Your task to perform on an android device: Go to Maps Image 0: 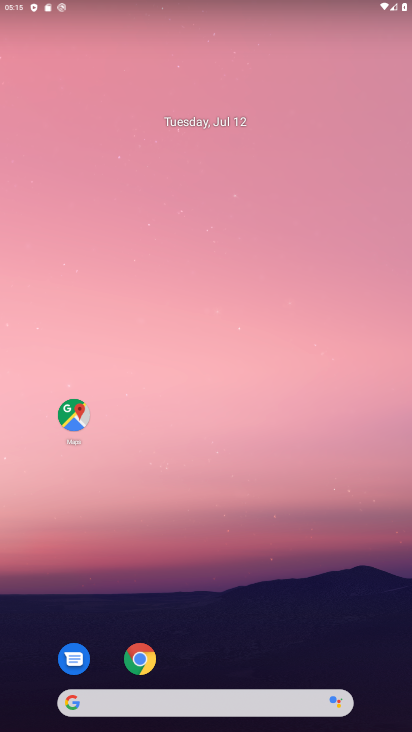
Step 0: click (73, 414)
Your task to perform on an android device: Go to Maps Image 1: 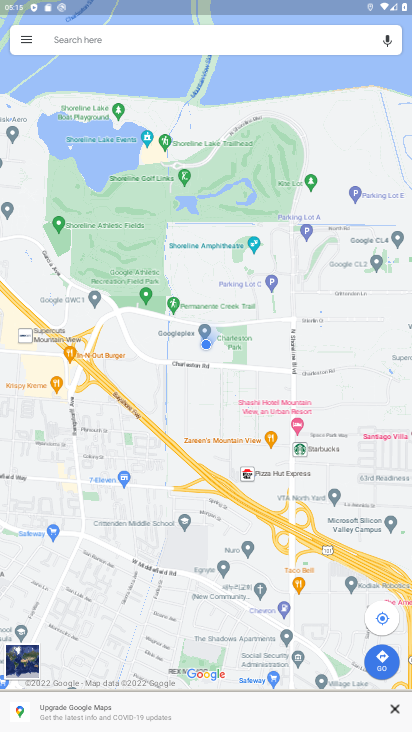
Step 1: task complete